Your task to perform on an android device: Show me productivity apps on the Play Store Image 0: 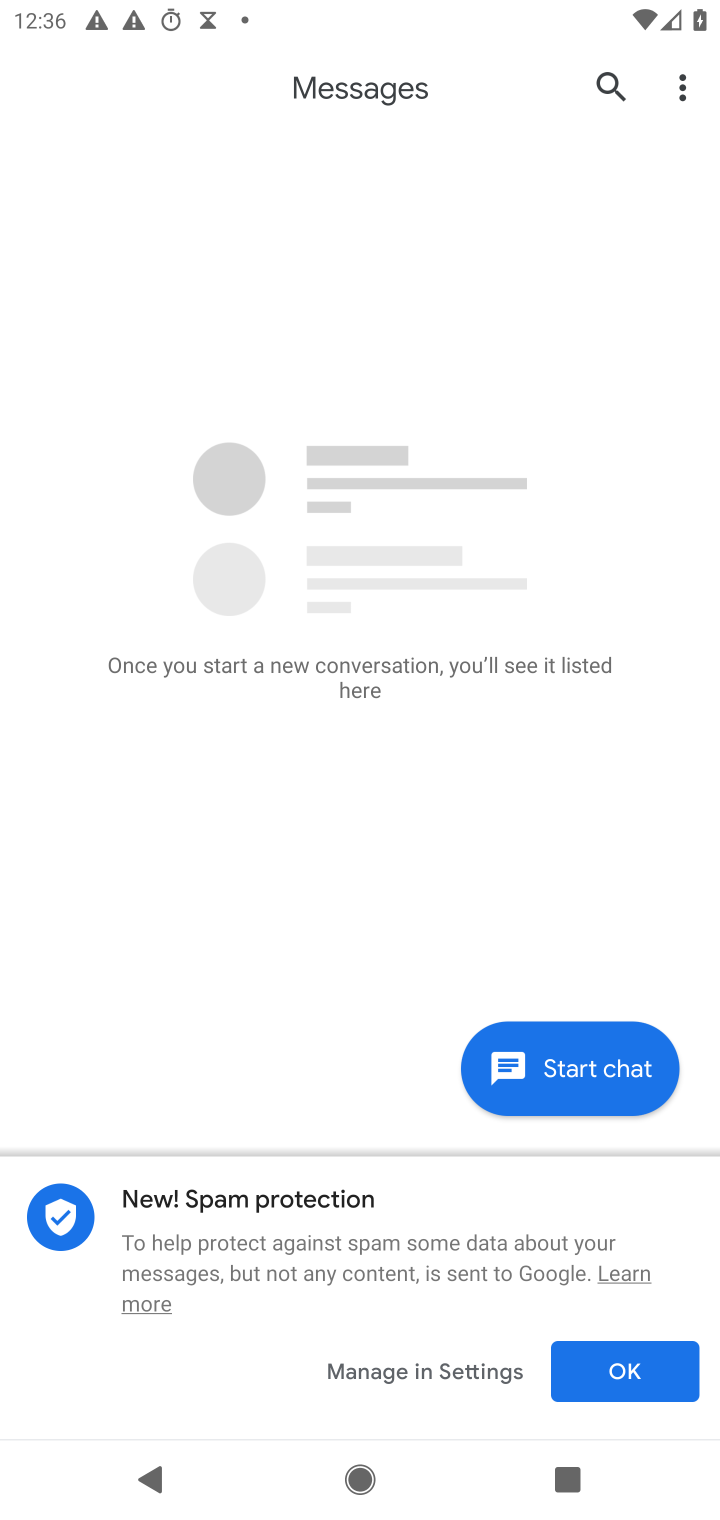
Step 0: press home button
Your task to perform on an android device: Show me productivity apps on the Play Store Image 1: 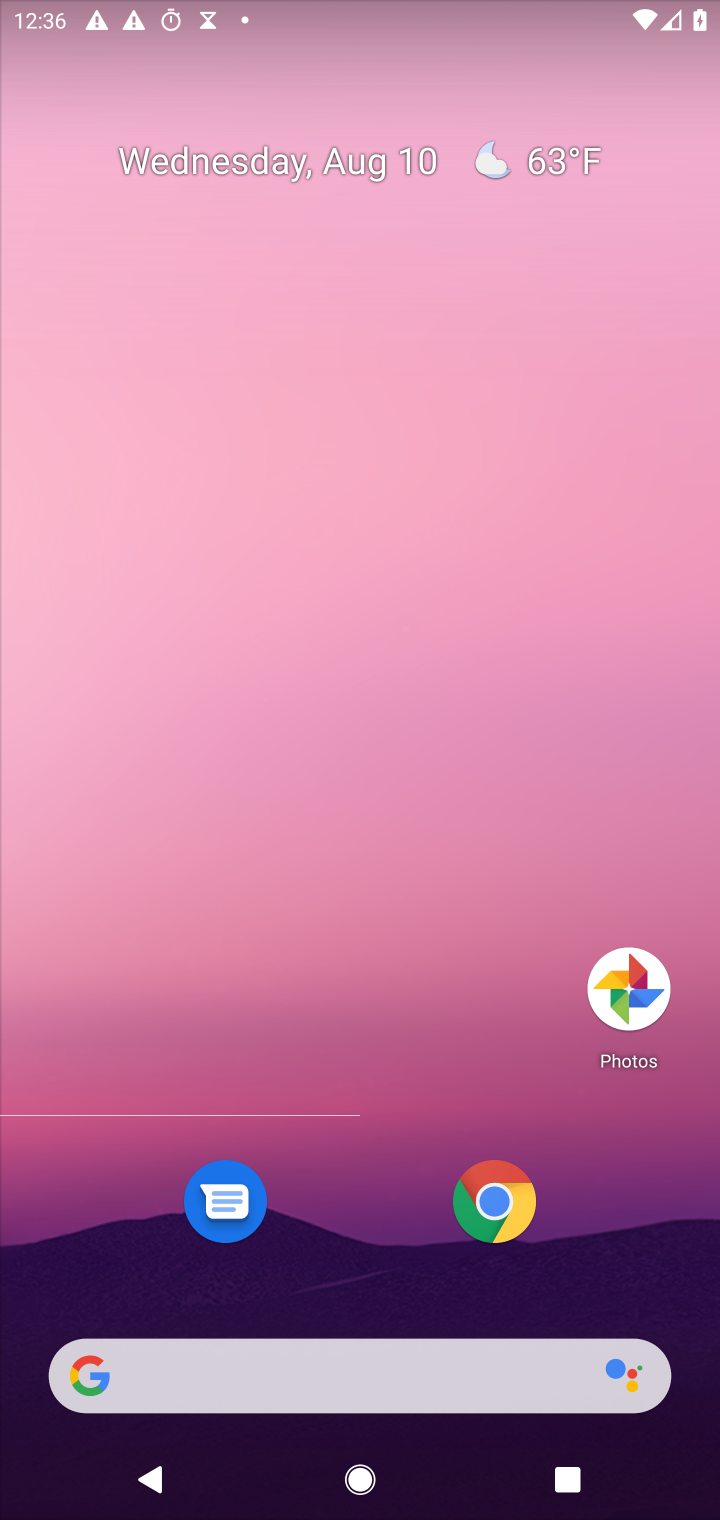
Step 1: drag from (377, 1195) to (453, 335)
Your task to perform on an android device: Show me productivity apps on the Play Store Image 2: 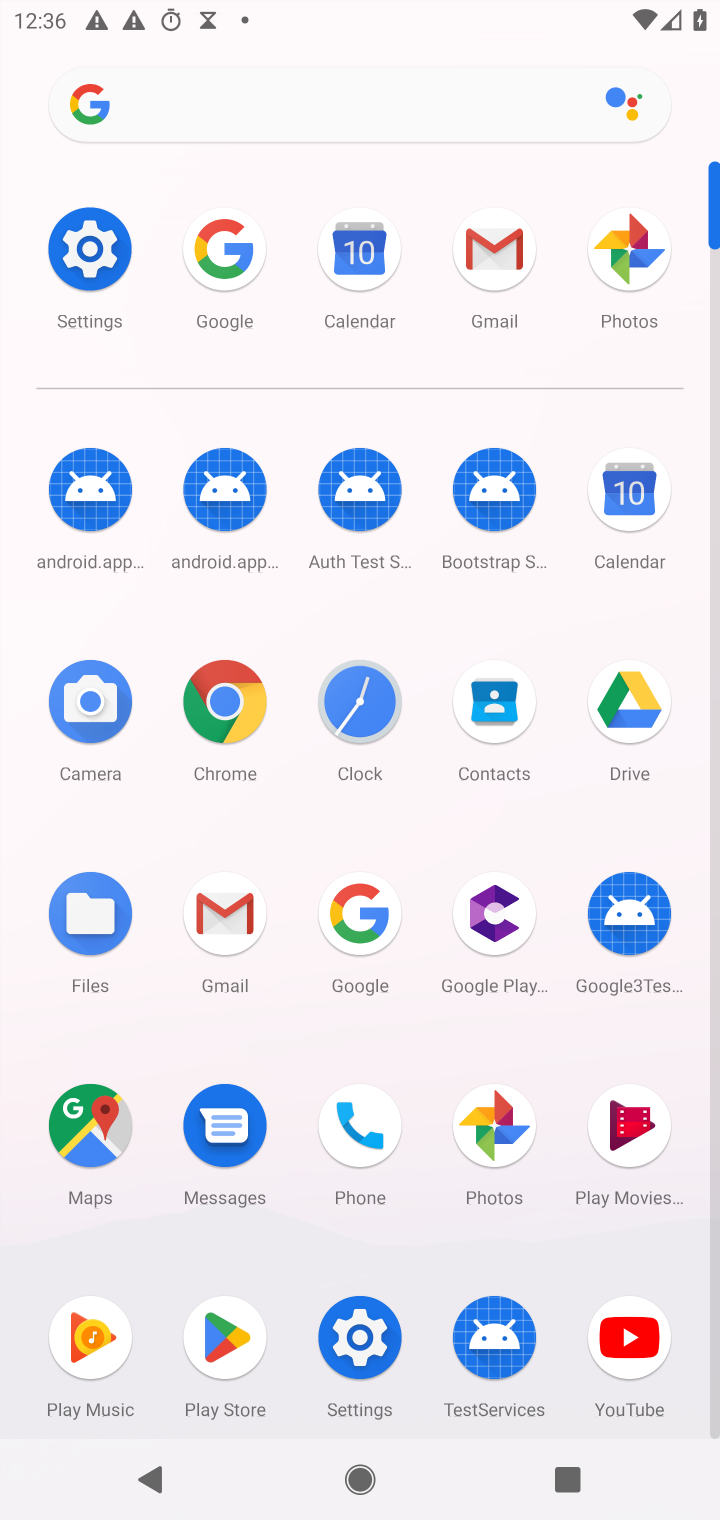
Step 2: click (218, 1359)
Your task to perform on an android device: Show me productivity apps on the Play Store Image 3: 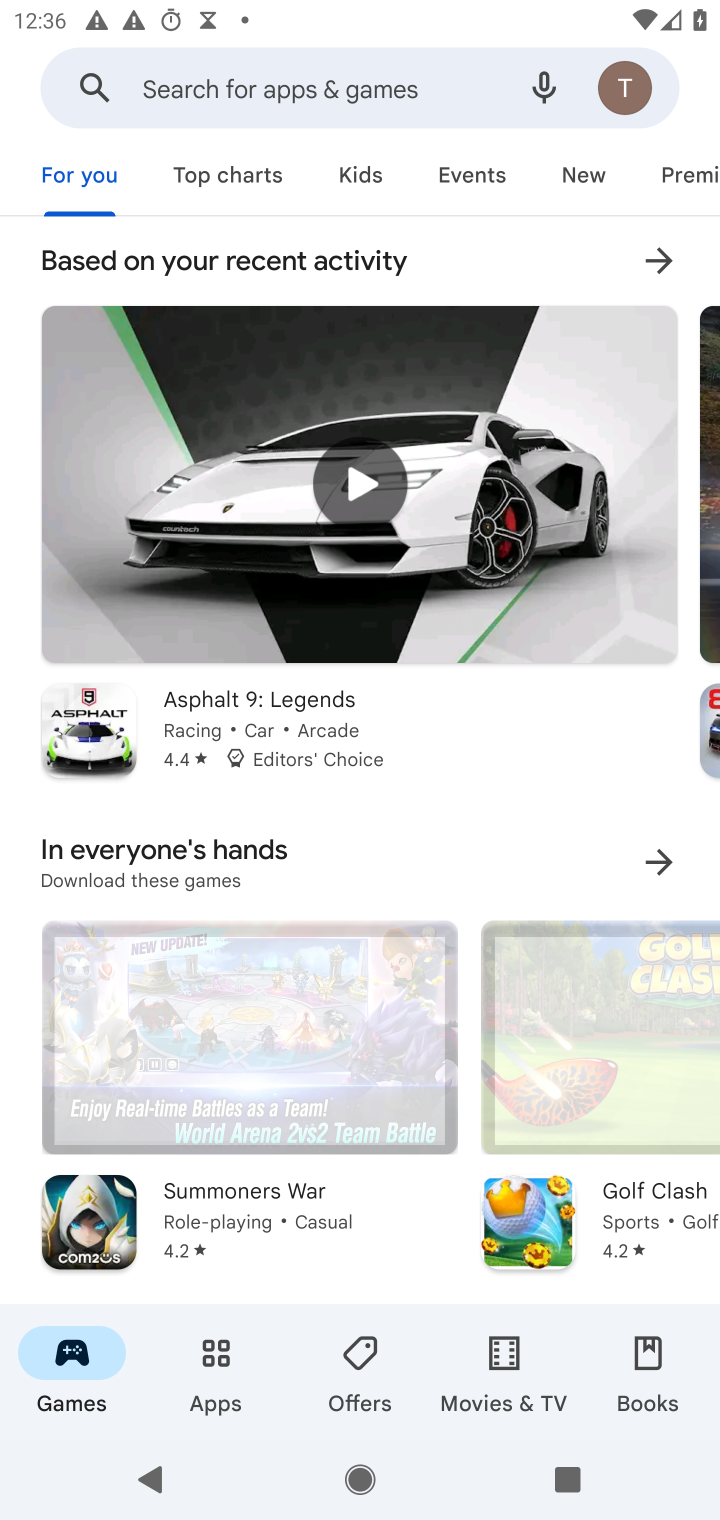
Step 3: drag from (292, 190) to (155, 201)
Your task to perform on an android device: Show me productivity apps on the Play Store Image 4: 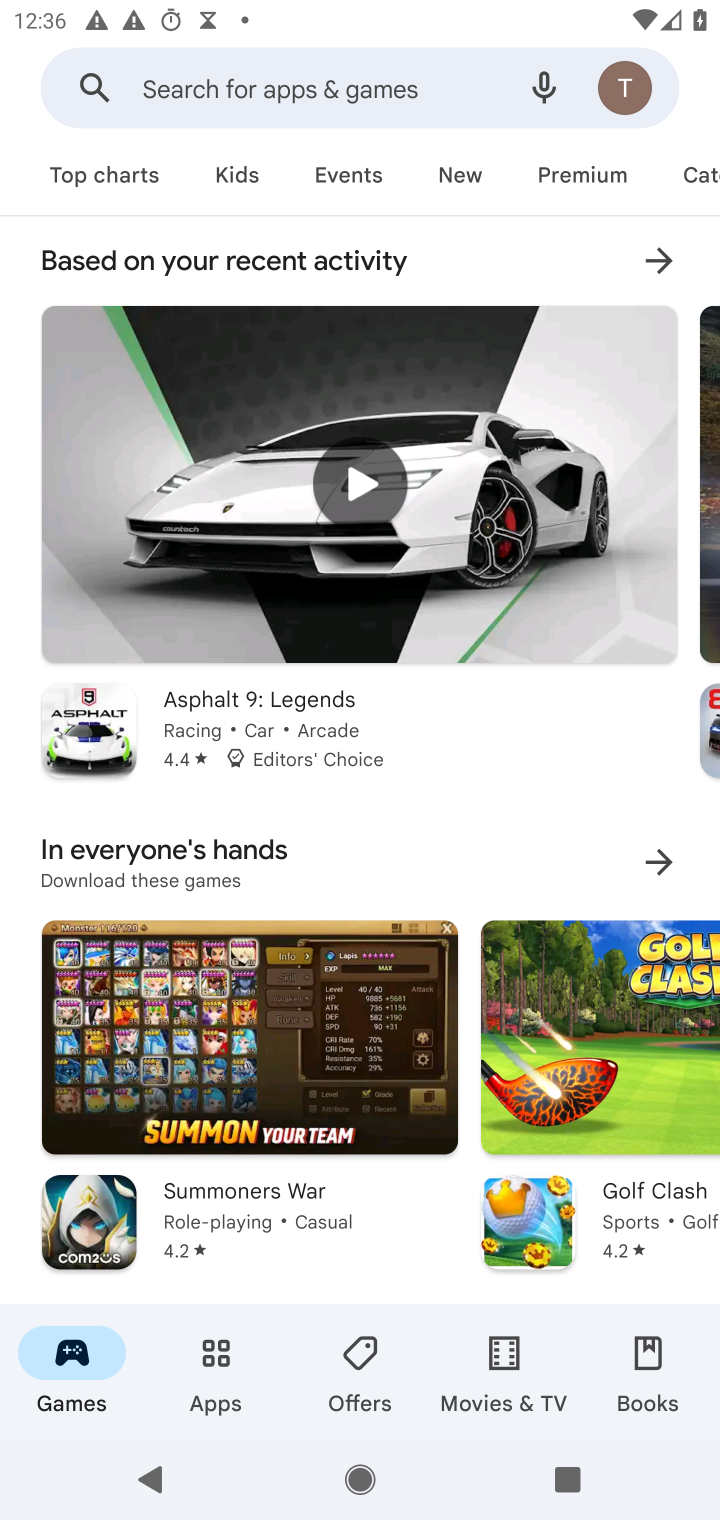
Step 4: click (212, 1352)
Your task to perform on an android device: Show me productivity apps on the Play Store Image 5: 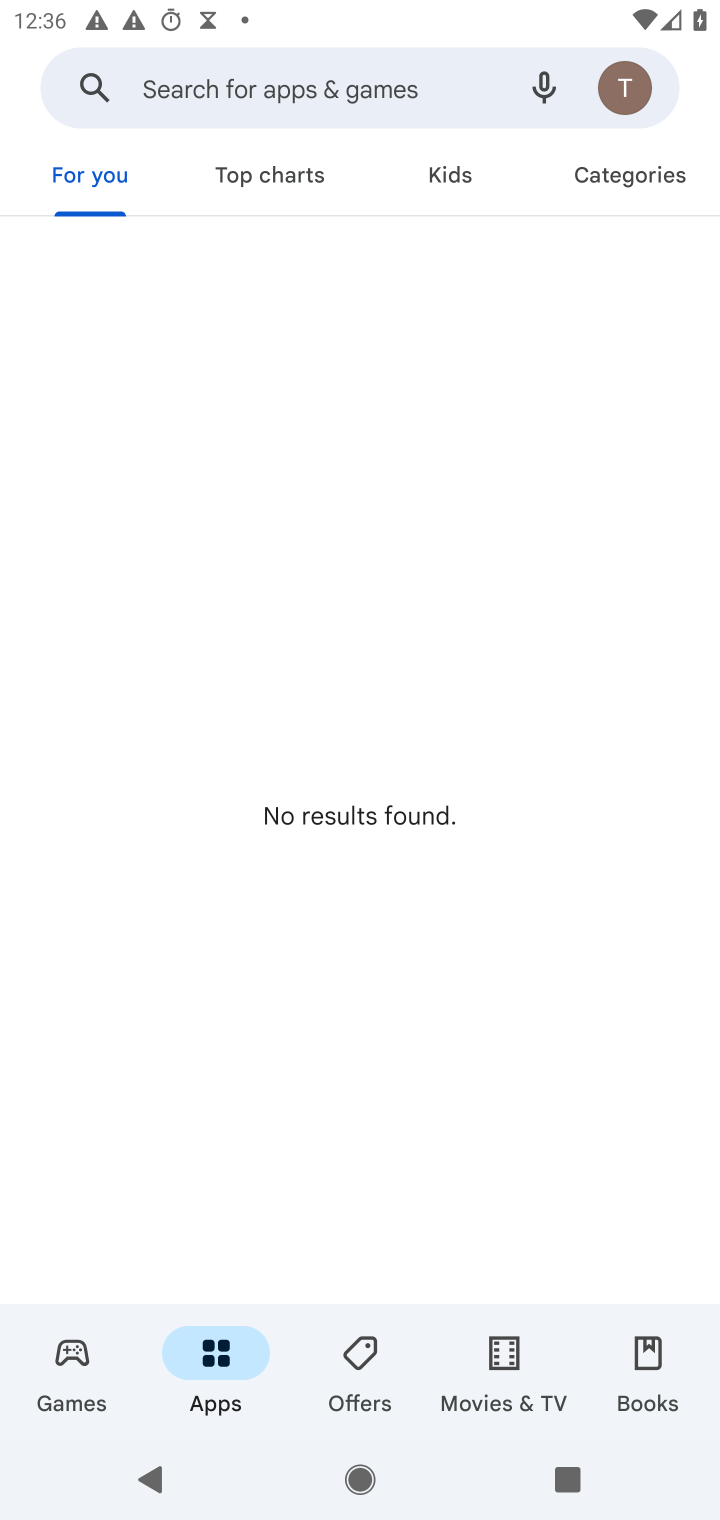
Step 5: click (654, 177)
Your task to perform on an android device: Show me productivity apps on the Play Store Image 6: 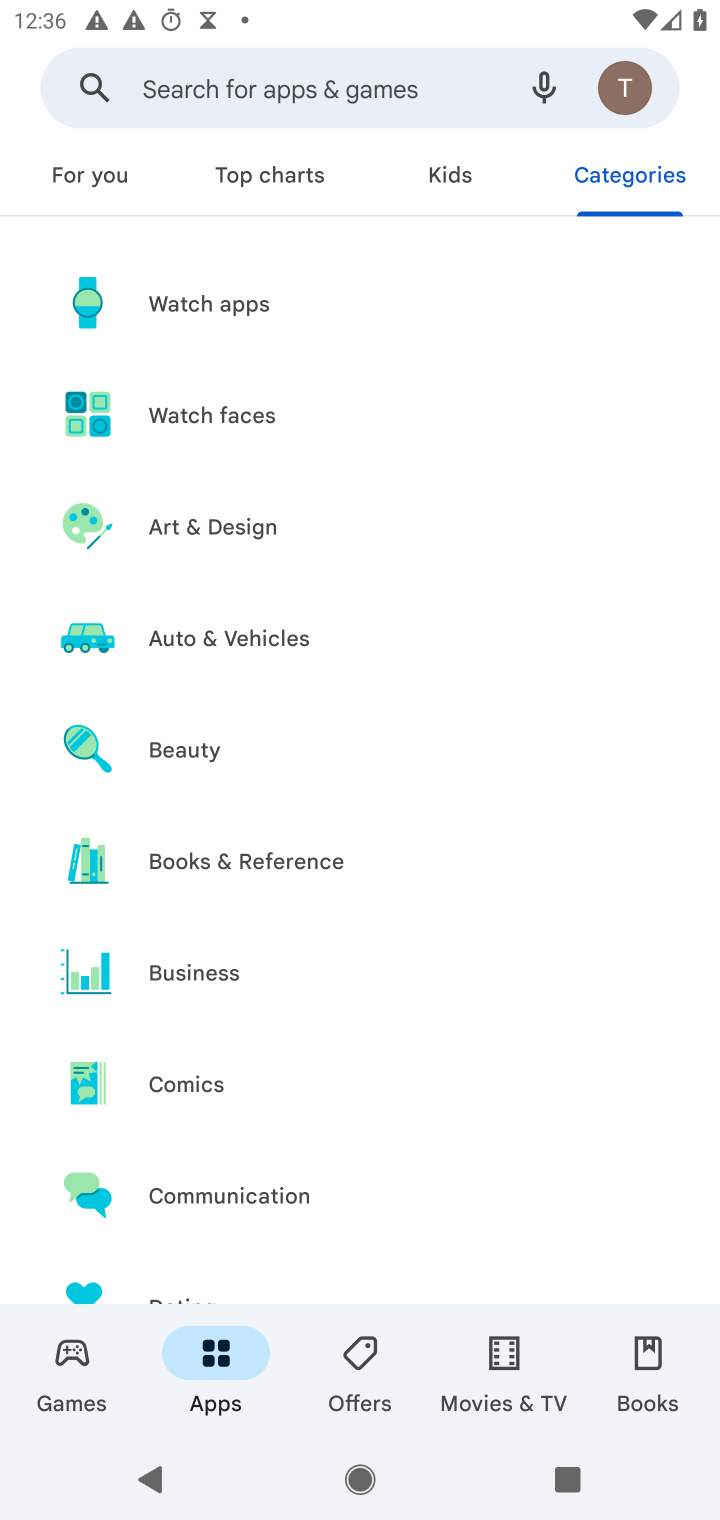
Step 6: drag from (422, 1118) to (420, 276)
Your task to perform on an android device: Show me productivity apps on the Play Store Image 7: 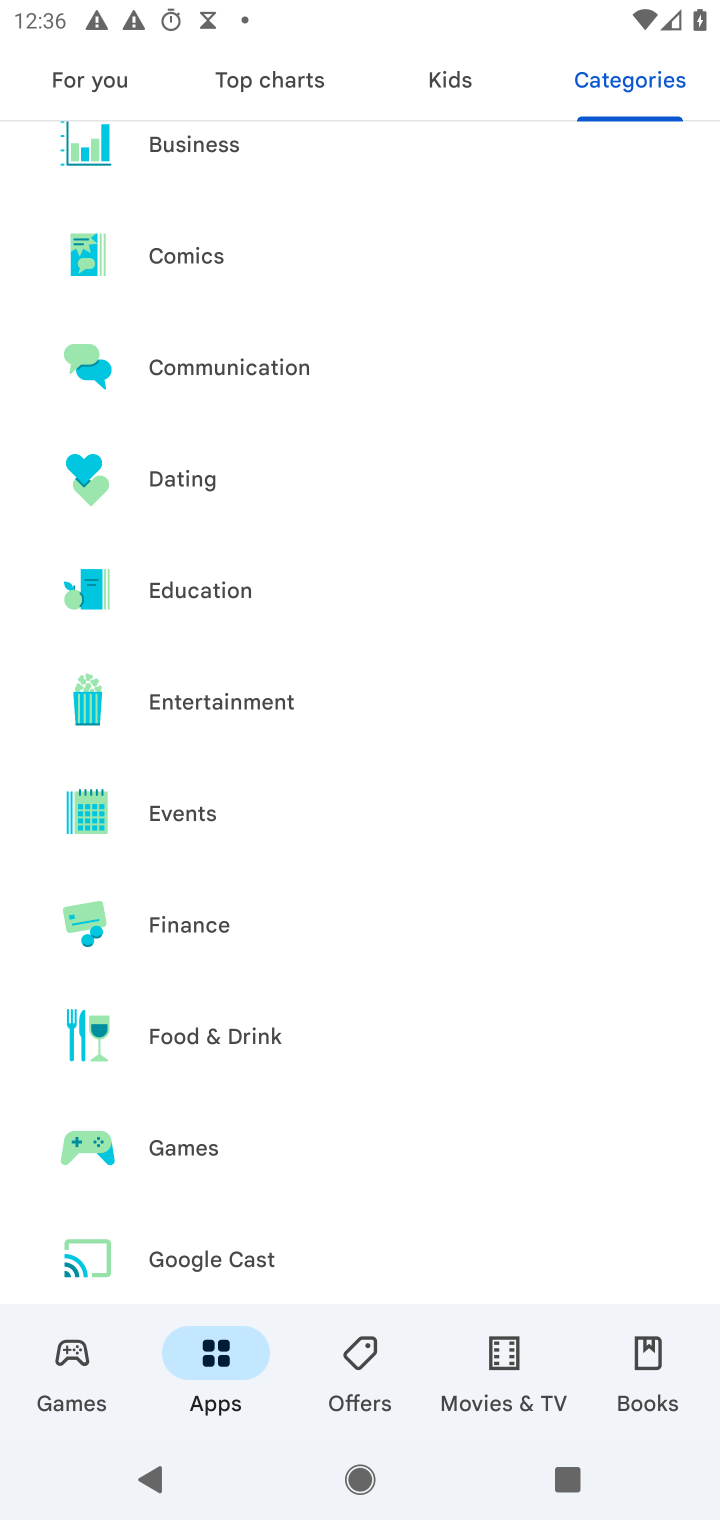
Step 7: drag from (291, 1206) to (343, 428)
Your task to perform on an android device: Show me productivity apps on the Play Store Image 8: 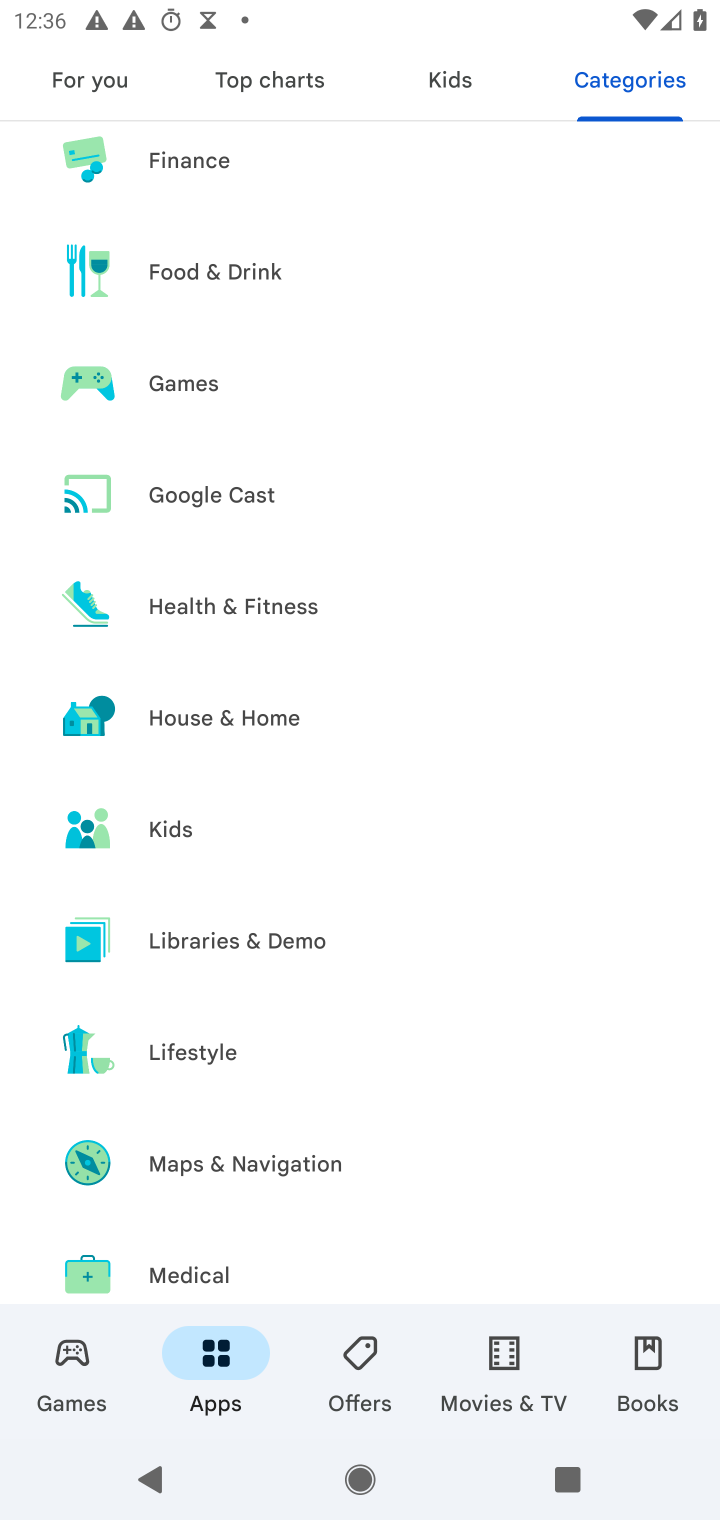
Step 8: drag from (310, 1209) to (520, 89)
Your task to perform on an android device: Show me productivity apps on the Play Store Image 9: 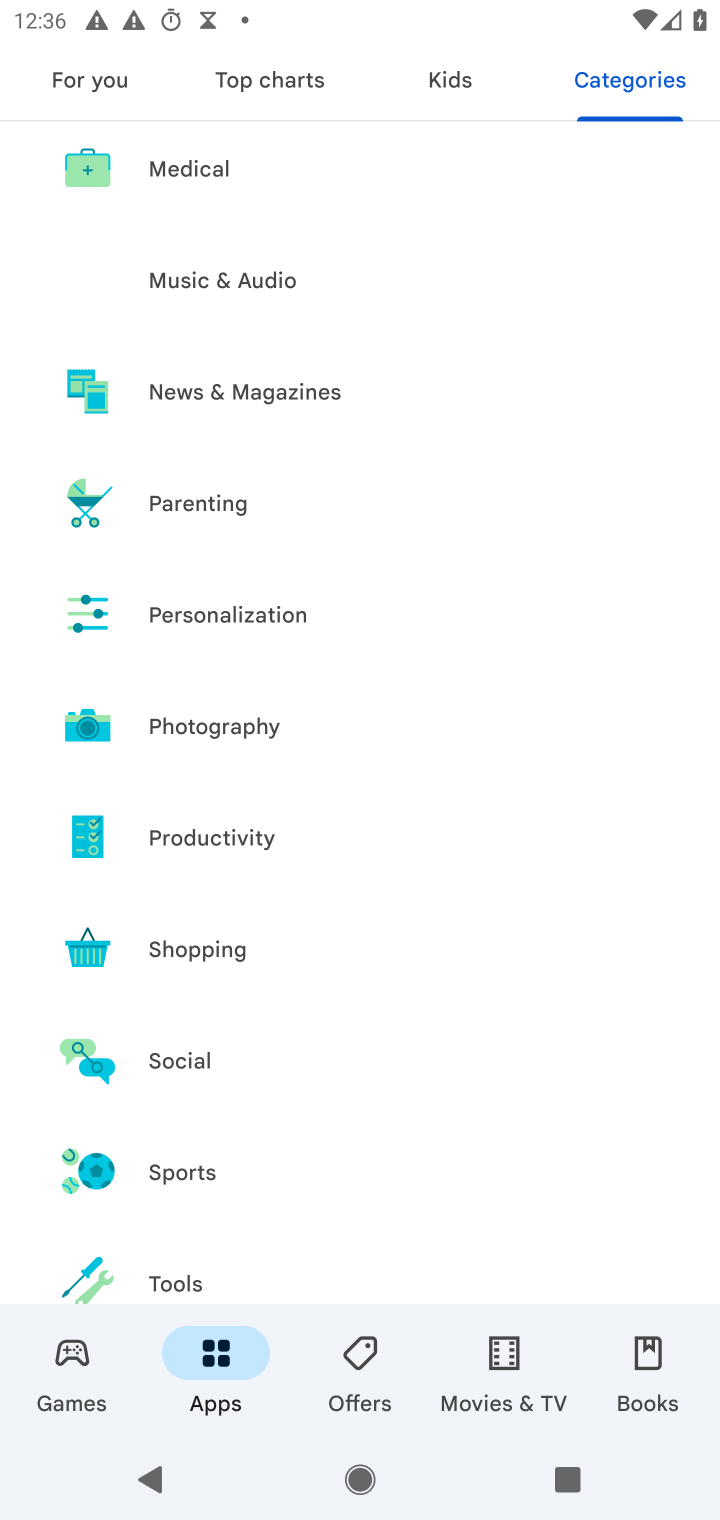
Step 9: drag from (344, 1109) to (369, 909)
Your task to perform on an android device: Show me productivity apps on the Play Store Image 10: 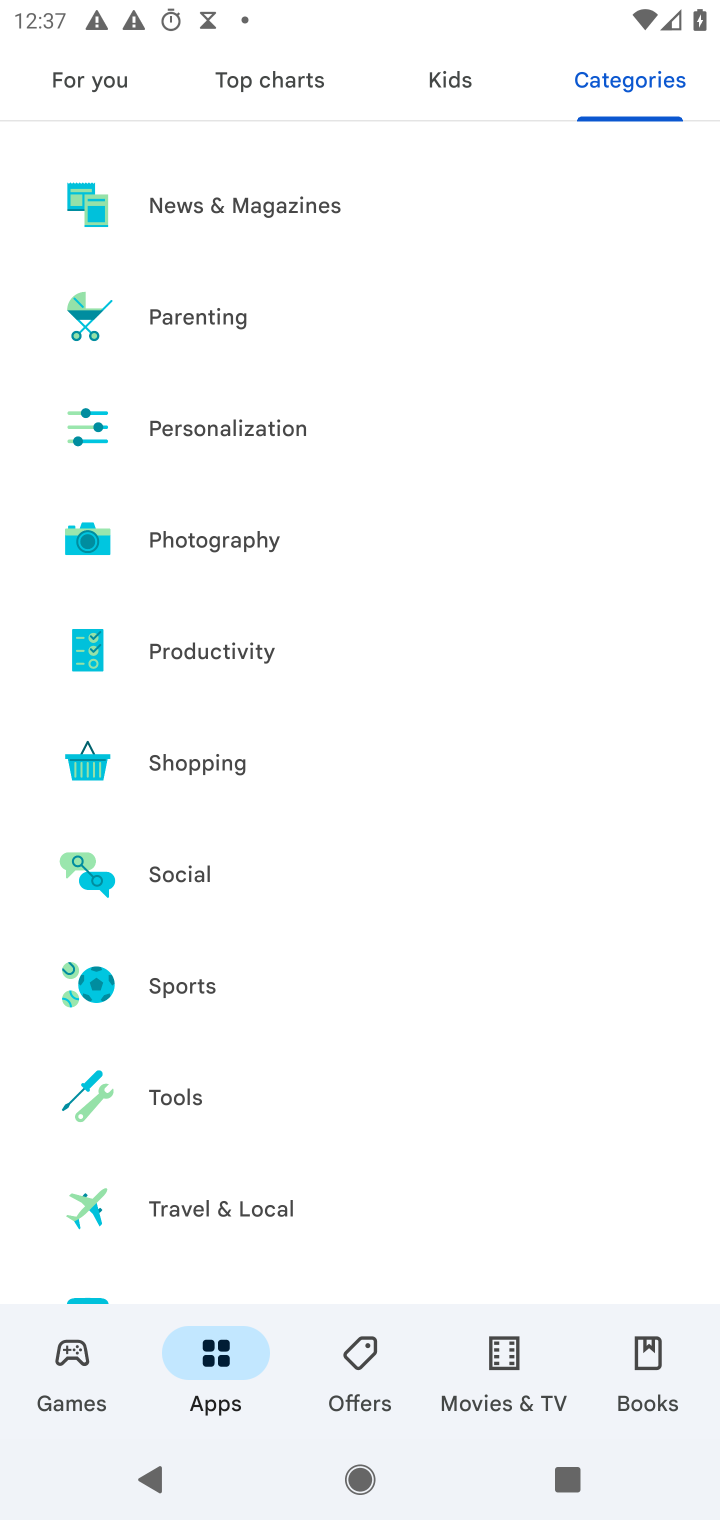
Step 10: click (252, 645)
Your task to perform on an android device: Show me productivity apps on the Play Store Image 11: 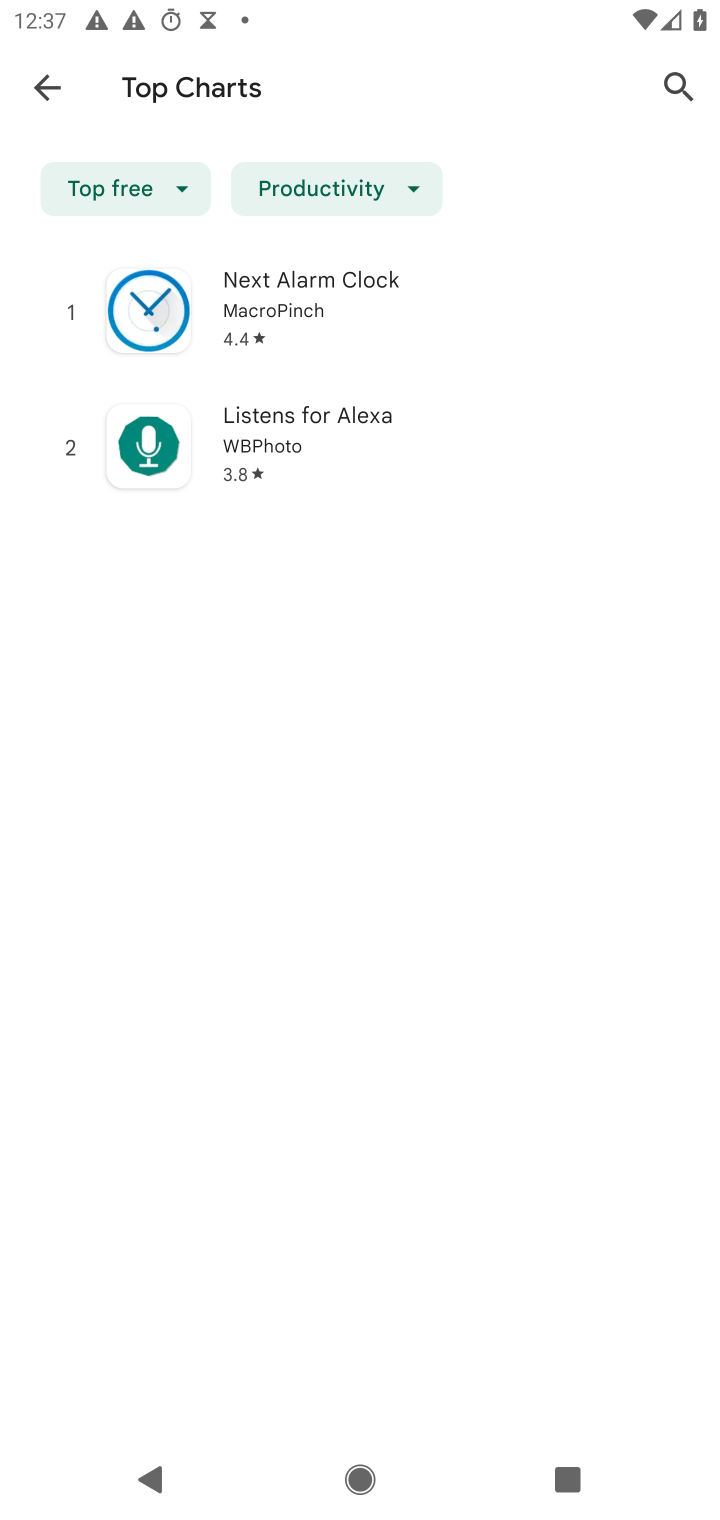
Step 11: press back button
Your task to perform on an android device: Show me productivity apps on the Play Store Image 12: 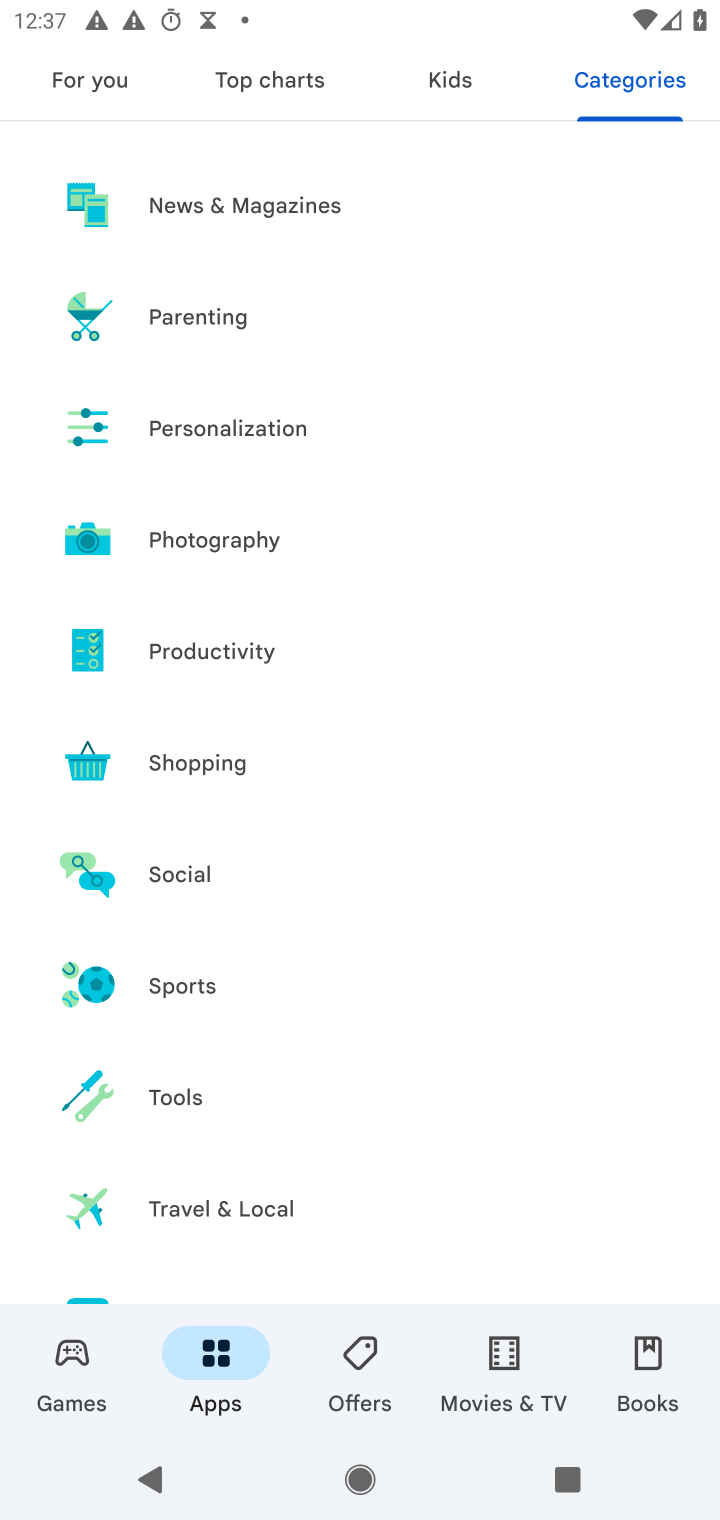
Step 12: click (222, 645)
Your task to perform on an android device: Show me productivity apps on the Play Store Image 13: 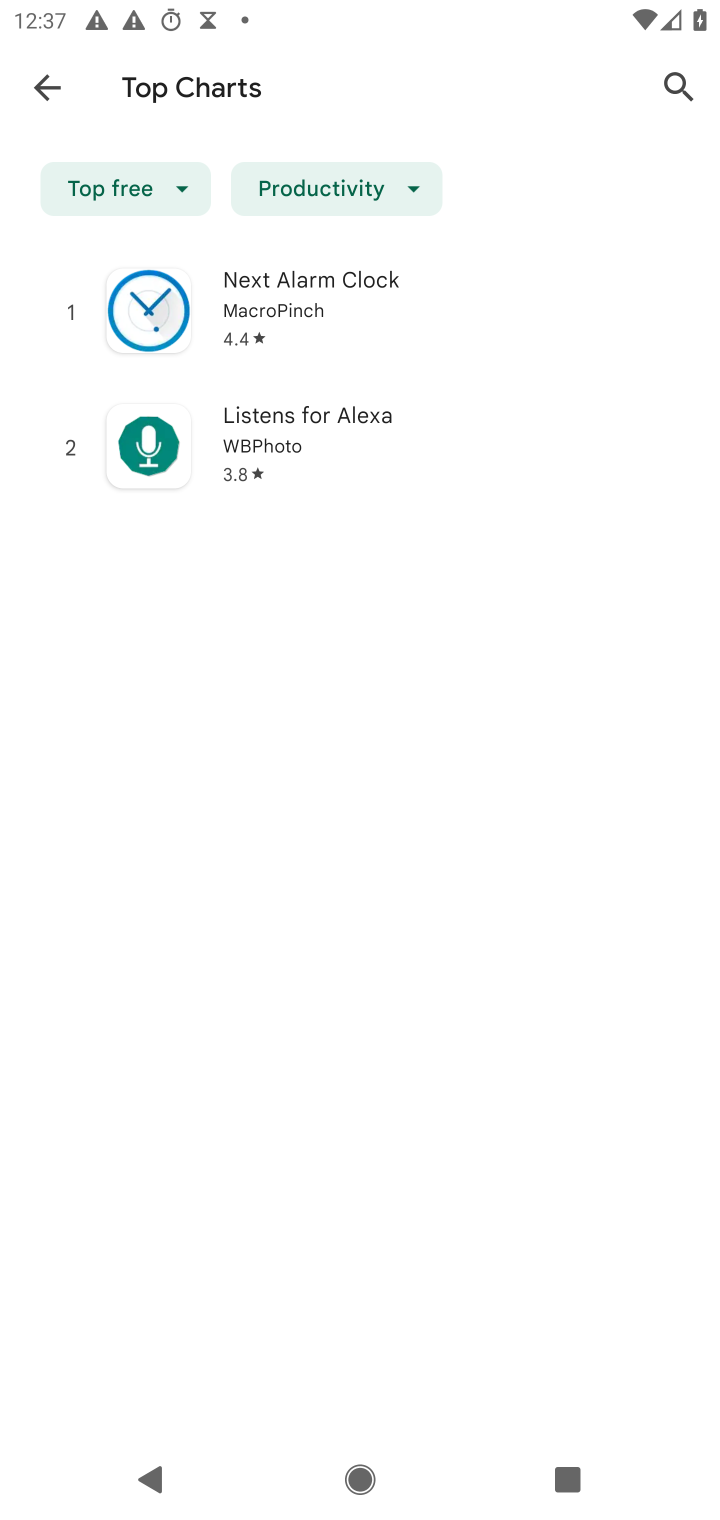
Step 13: task complete